Your task to perform on an android device: turn on notifications settings in the gmail app Image 0: 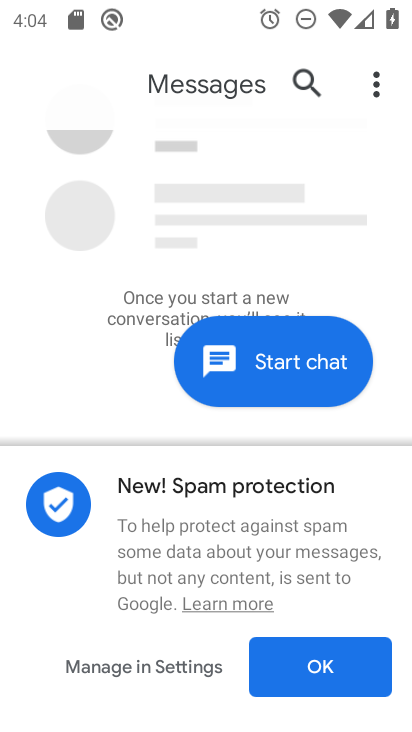
Step 0: press back button
Your task to perform on an android device: turn on notifications settings in the gmail app Image 1: 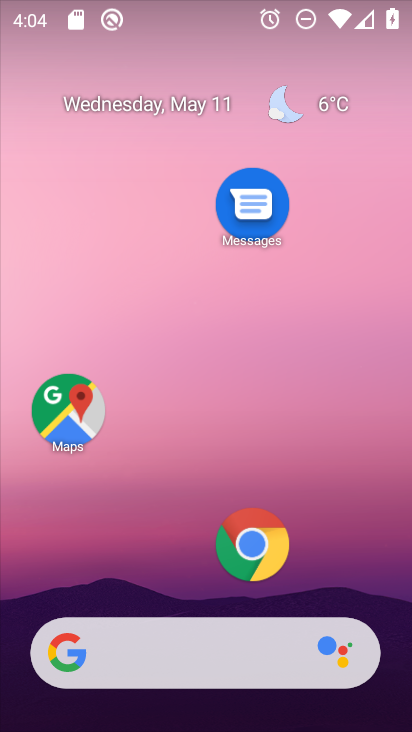
Step 1: drag from (158, 580) to (267, 45)
Your task to perform on an android device: turn on notifications settings in the gmail app Image 2: 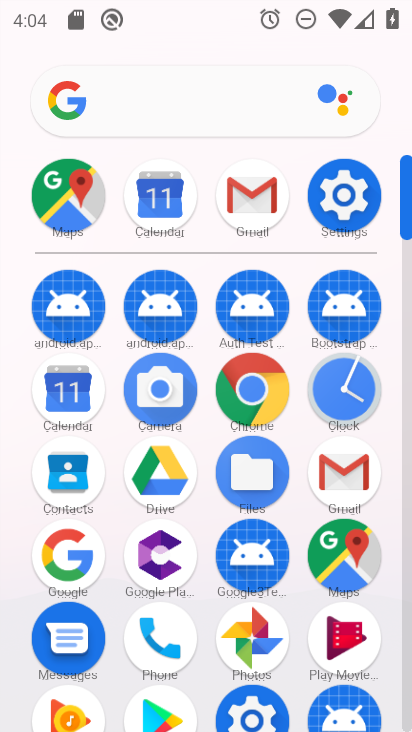
Step 2: click (347, 490)
Your task to perform on an android device: turn on notifications settings in the gmail app Image 3: 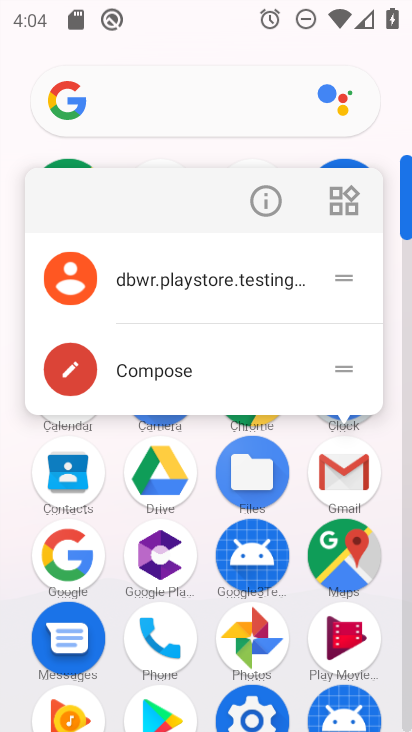
Step 3: click (267, 185)
Your task to perform on an android device: turn on notifications settings in the gmail app Image 4: 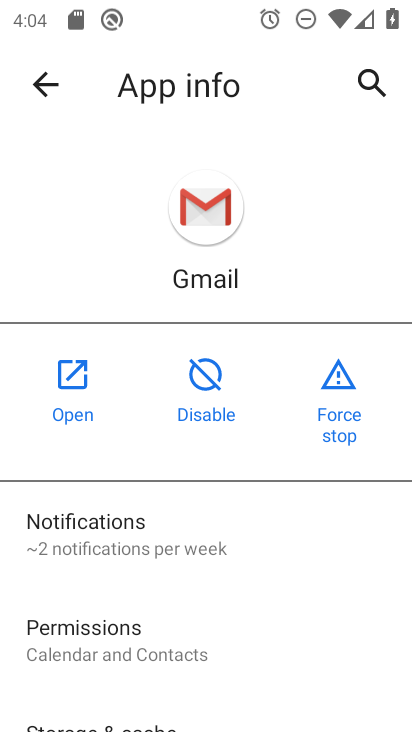
Step 4: click (122, 536)
Your task to perform on an android device: turn on notifications settings in the gmail app Image 5: 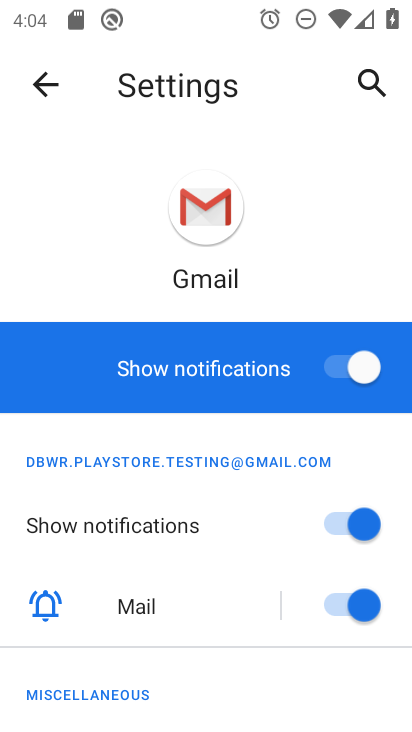
Step 5: task complete